Your task to perform on an android device: turn off data saver in the chrome app Image 0: 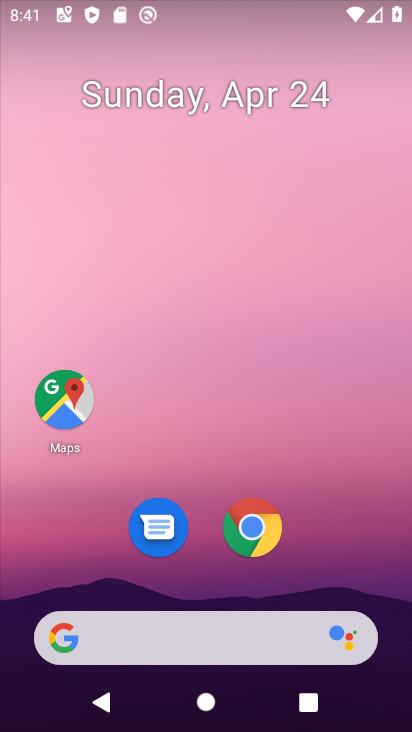
Step 0: click (259, 535)
Your task to perform on an android device: turn off data saver in the chrome app Image 1: 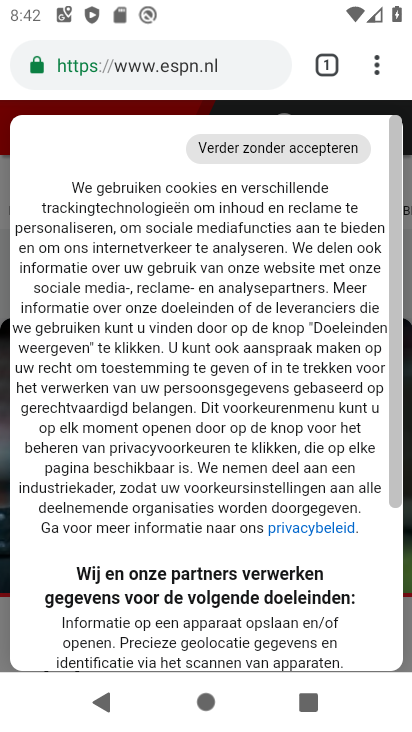
Step 1: click (374, 61)
Your task to perform on an android device: turn off data saver in the chrome app Image 2: 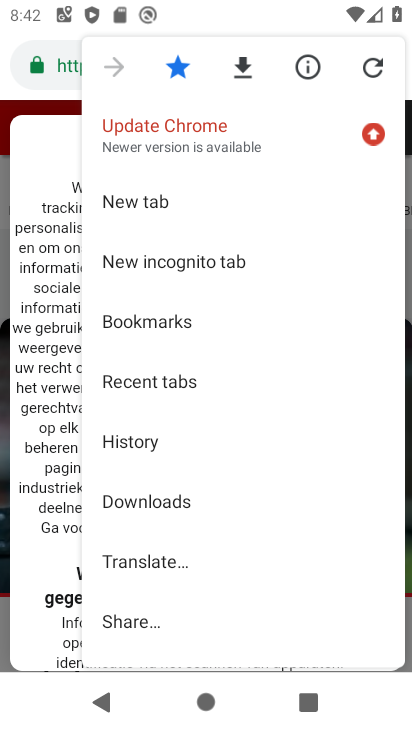
Step 2: drag from (251, 533) to (263, 156)
Your task to perform on an android device: turn off data saver in the chrome app Image 3: 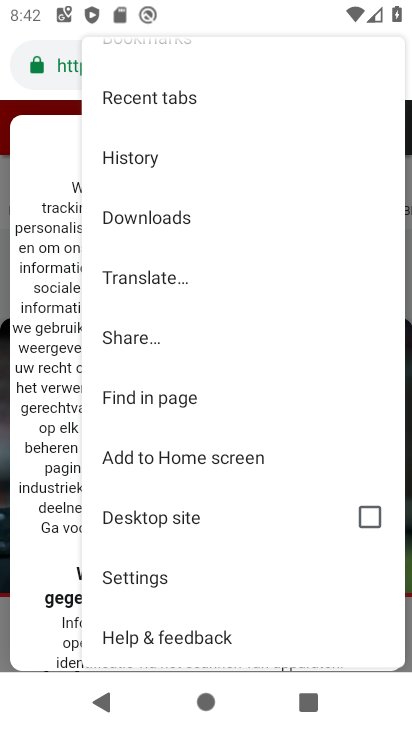
Step 3: click (140, 578)
Your task to perform on an android device: turn off data saver in the chrome app Image 4: 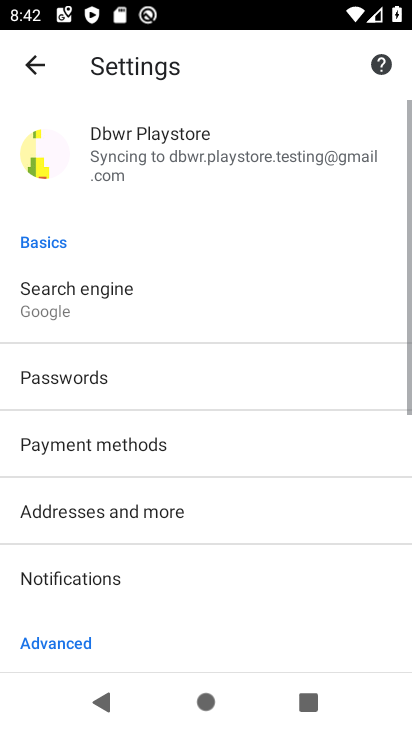
Step 4: drag from (140, 578) to (183, 101)
Your task to perform on an android device: turn off data saver in the chrome app Image 5: 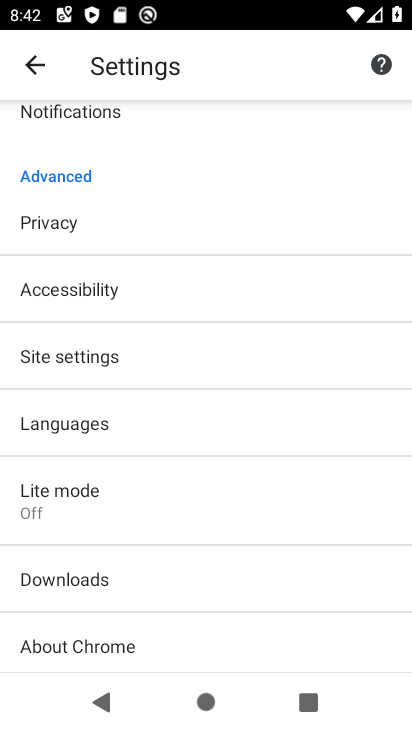
Step 5: click (43, 511)
Your task to perform on an android device: turn off data saver in the chrome app Image 6: 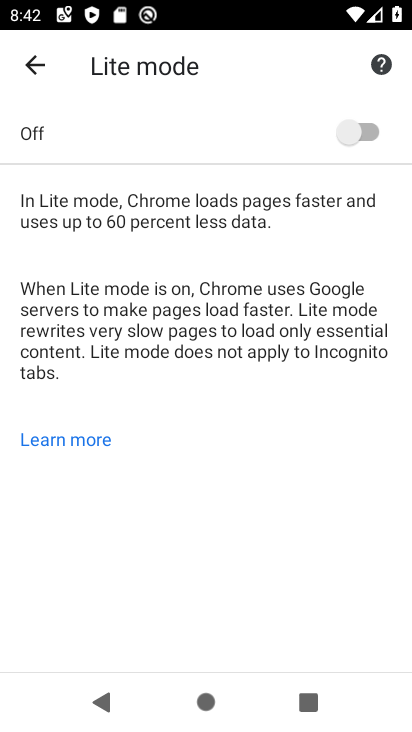
Step 6: task complete